Your task to perform on an android device: change the clock display to analog Image 0: 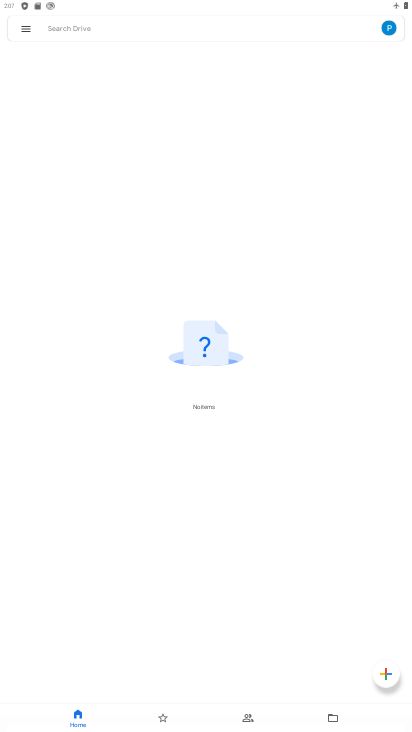
Step 0: press home button
Your task to perform on an android device: change the clock display to analog Image 1: 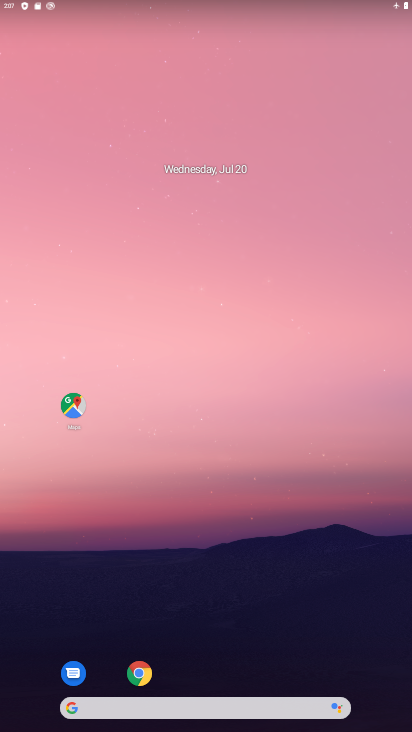
Step 1: drag from (391, 407) to (359, 41)
Your task to perform on an android device: change the clock display to analog Image 2: 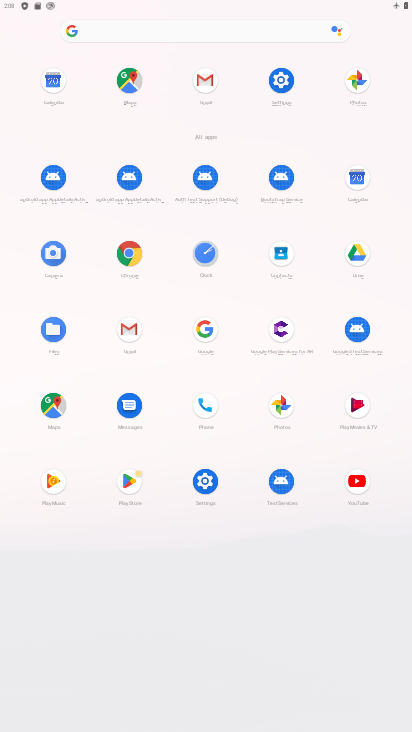
Step 2: click (196, 258)
Your task to perform on an android device: change the clock display to analog Image 3: 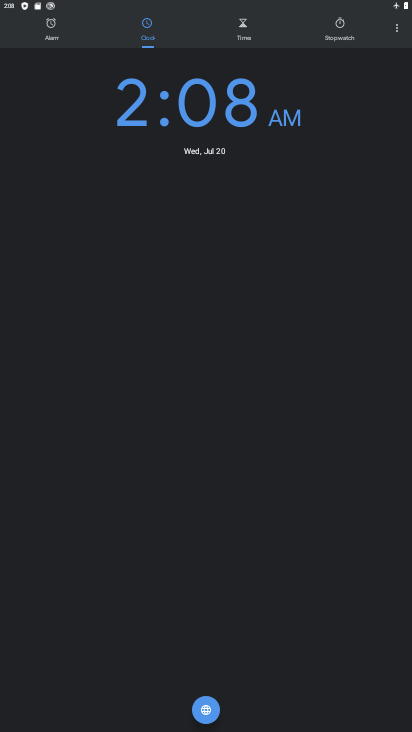
Step 3: click (400, 32)
Your task to perform on an android device: change the clock display to analog Image 4: 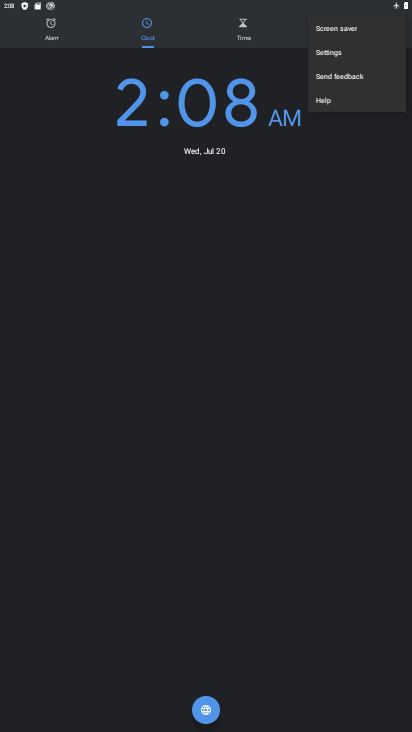
Step 4: click (343, 53)
Your task to perform on an android device: change the clock display to analog Image 5: 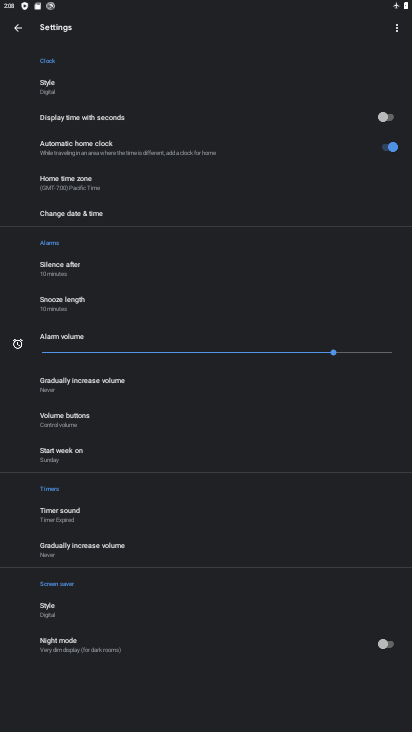
Step 5: click (86, 80)
Your task to perform on an android device: change the clock display to analog Image 6: 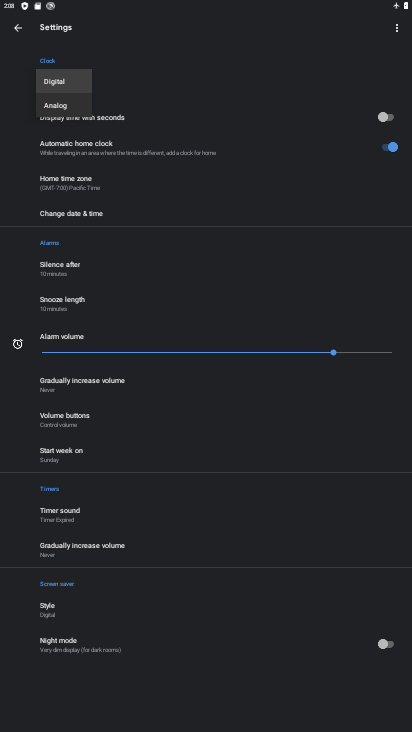
Step 6: click (63, 109)
Your task to perform on an android device: change the clock display to analog Image 7: 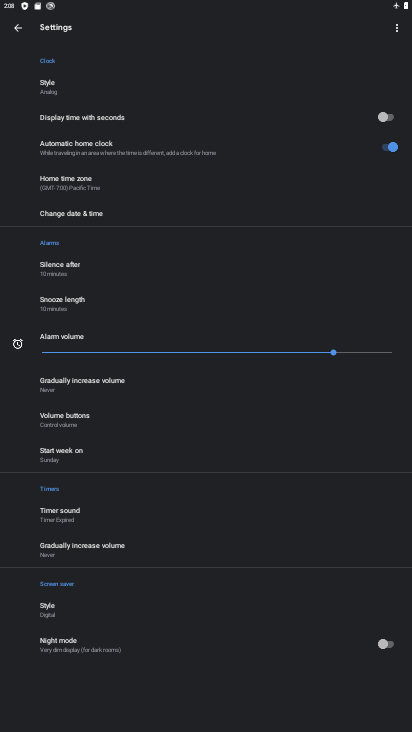
Step 7: task complete